Your task to perform on an android device: turn on improve location accuracy Image 0: 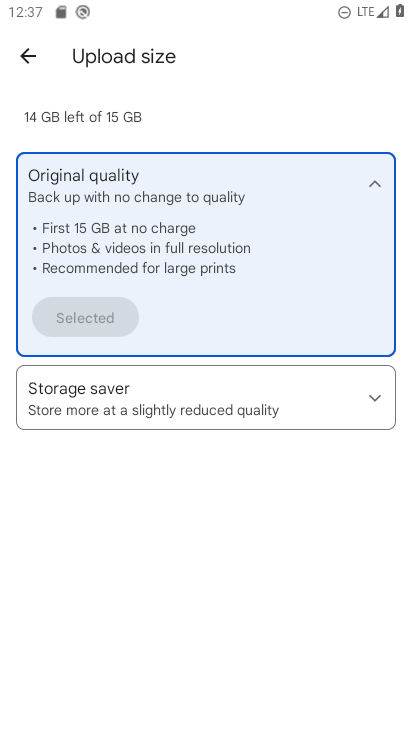
Step 0: press home button
Your task to perform on an android device: turn on improve location accuracy Image 1: 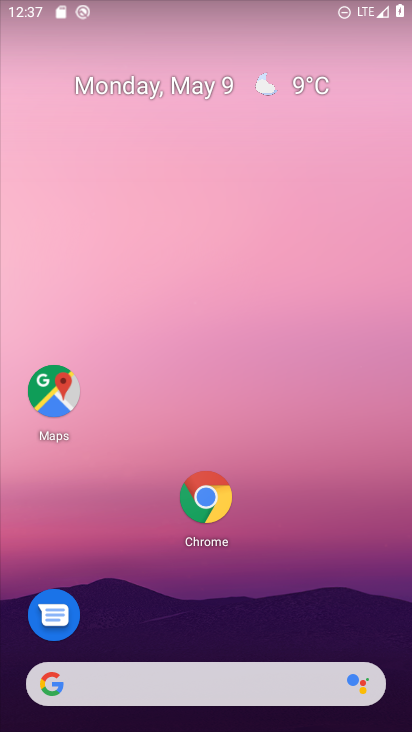
Step 1: drag from (318, 534) to (328, 98)
Your task to perform on an android device: turn on improve location accuracy Image 2: 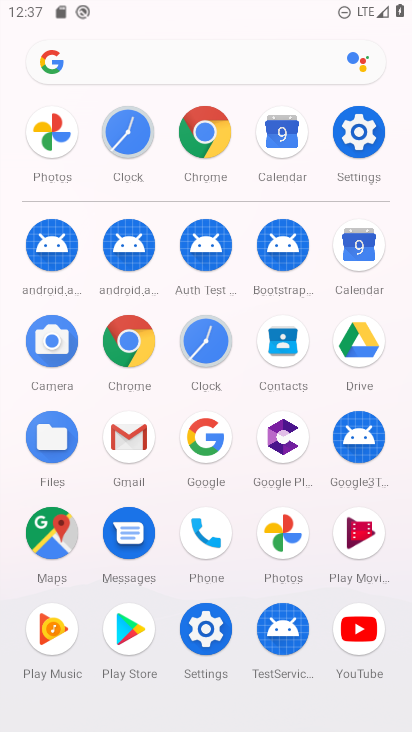
Step 2: click (370, 138)
Your task to perform on an android device: turn on improve location accuracy Image 3: 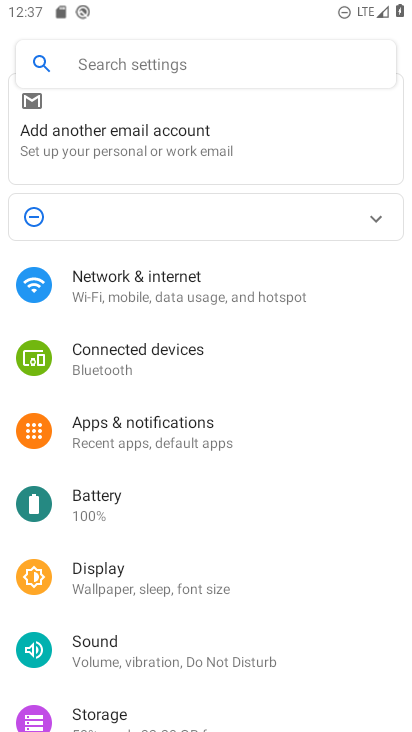
Step 3: drag from (191, 569) to (219, 160)
Your task to perform on an android device: turn on improve location accuracy Image 4: 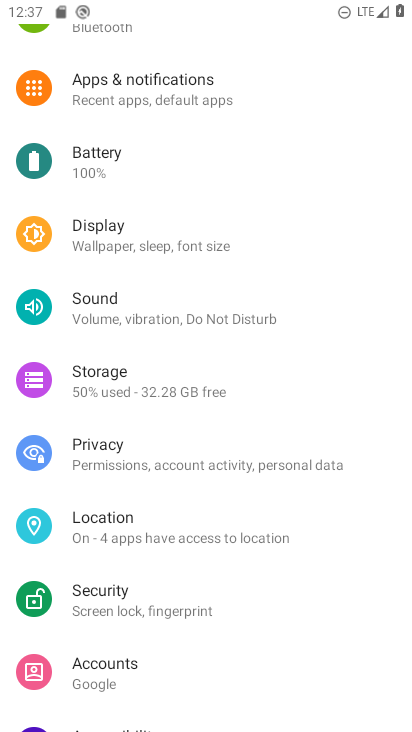
Step 4: drag from (175, 612) to (206, 414)
Your task to perform on an android device: turn on improve location accuracy Image 5: 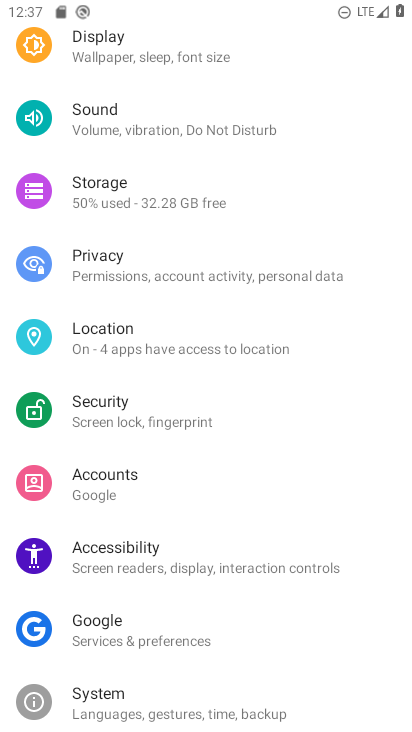
Step 5: click (168, 354)
Your task to perform on an android device: turn on improve location accuracy Image 6: 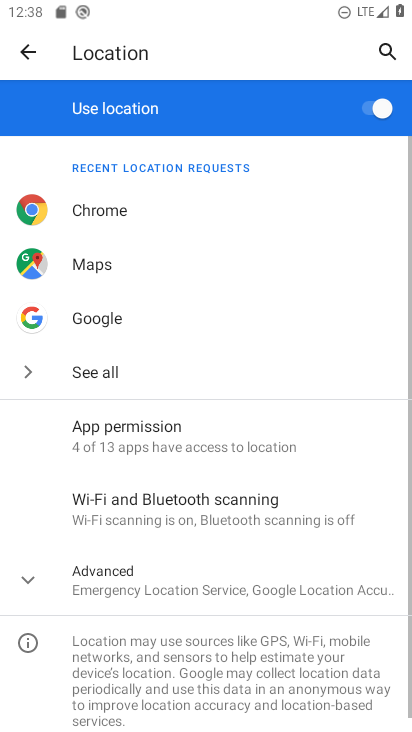
Step 6: click (179, 574)
Your task to perform on an android device: turn on improve location accuracy Image 7: 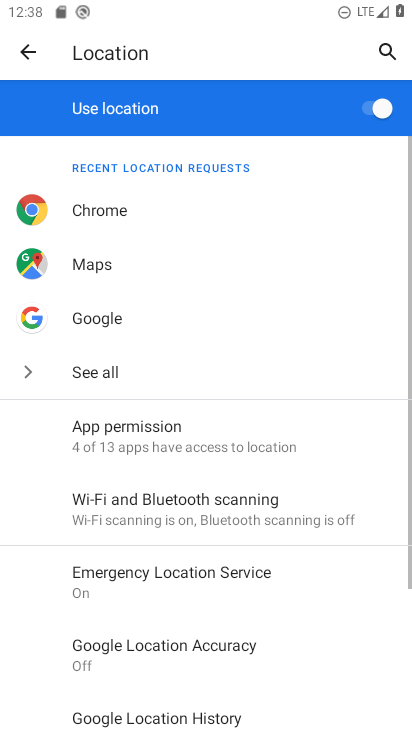
Step 7: drag from (299, 666) to (285, 277)
Your task to perform on an android device: turn on improve location accuracy Image 8: 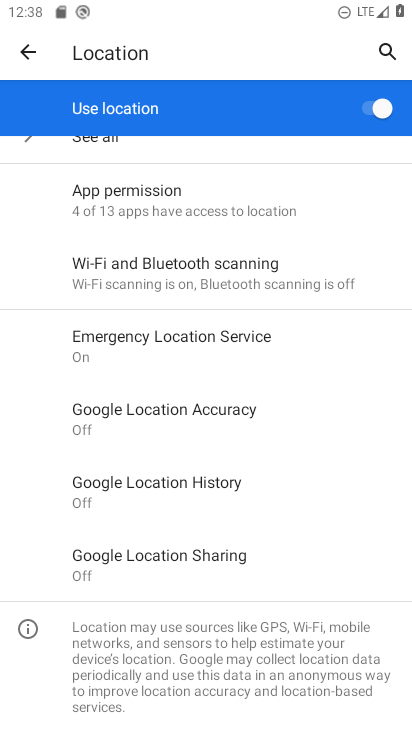
Step 8: click (217, 413)
Your task to perform on an android device: turn on improve location accuracy Image 9: 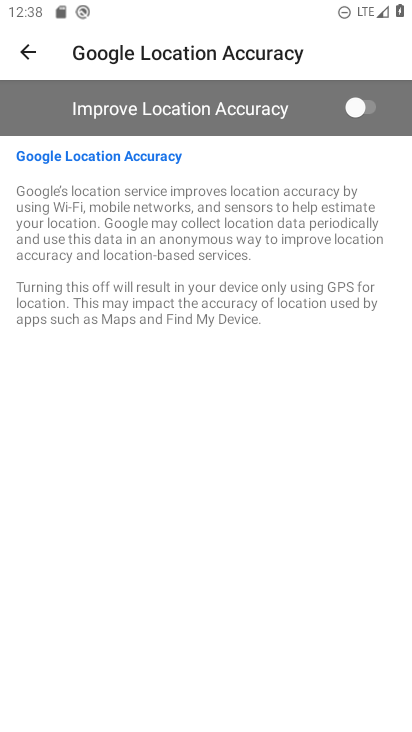
Step 9: click (370, 111)
Your task to perform on an android device: turn on improve location accuracy Image 10: 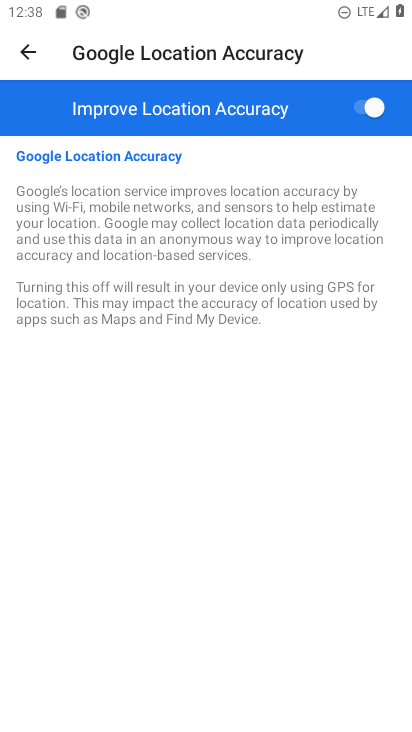
Step 10: task complete